Your task to perform on an android device: open app "Google Docs" Image 0: 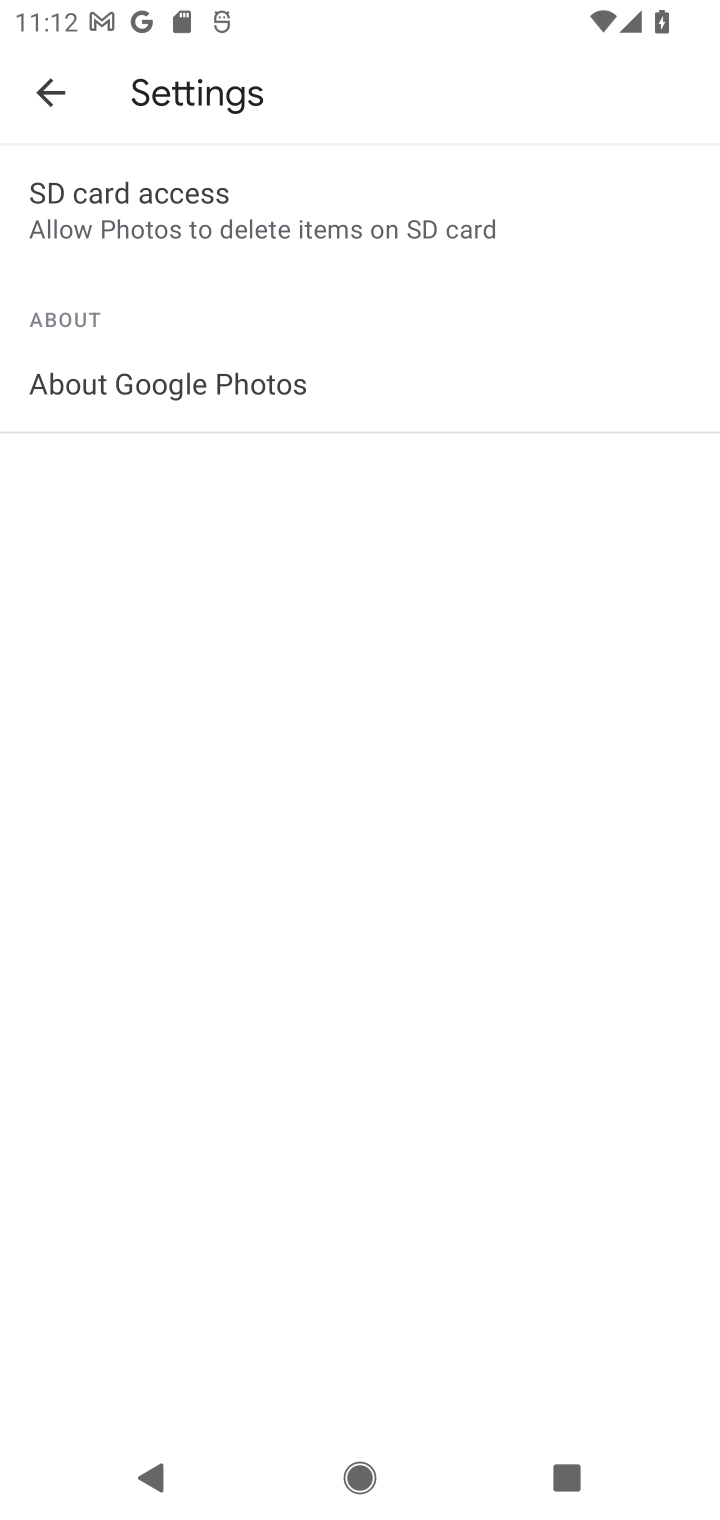
Step 0: press home button
Your task to perform on an android device: open app "Google Docs" Image 1: 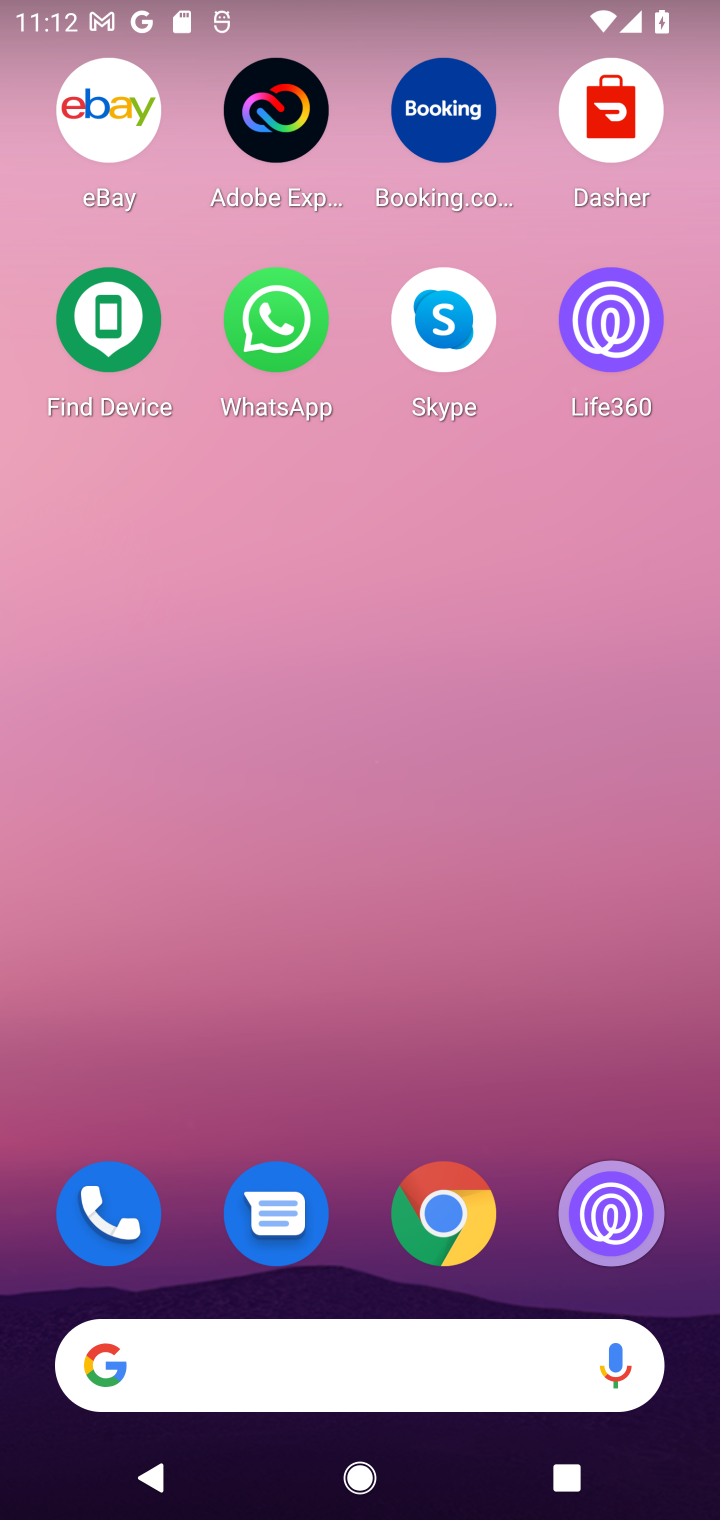
Step 1: drag from (336, 1353) to (308, 391)
Your task to perform on an android device: open app "Google Docs" Image 2: 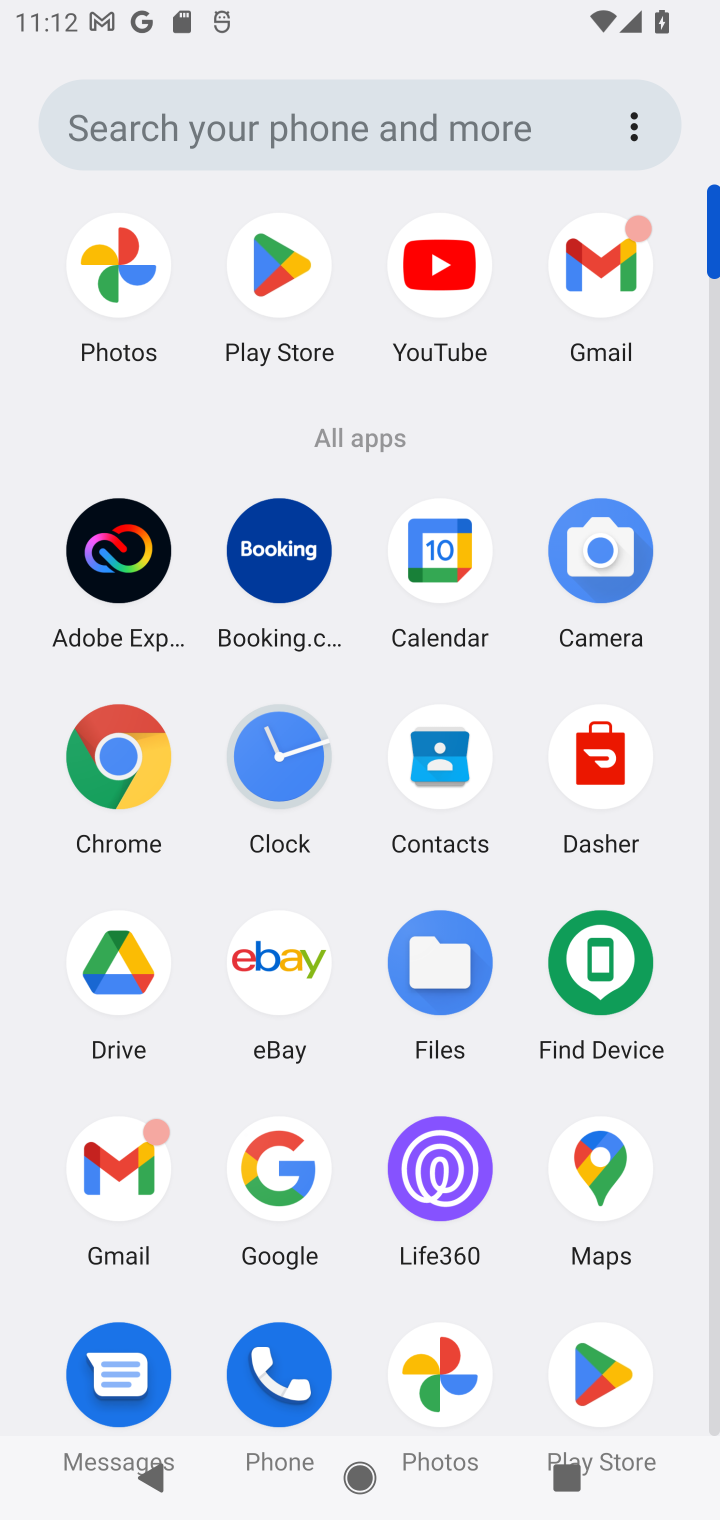
Step 2: click (284, 278)
Your task to perform on an android device: open app "Google Docs" Image 3: 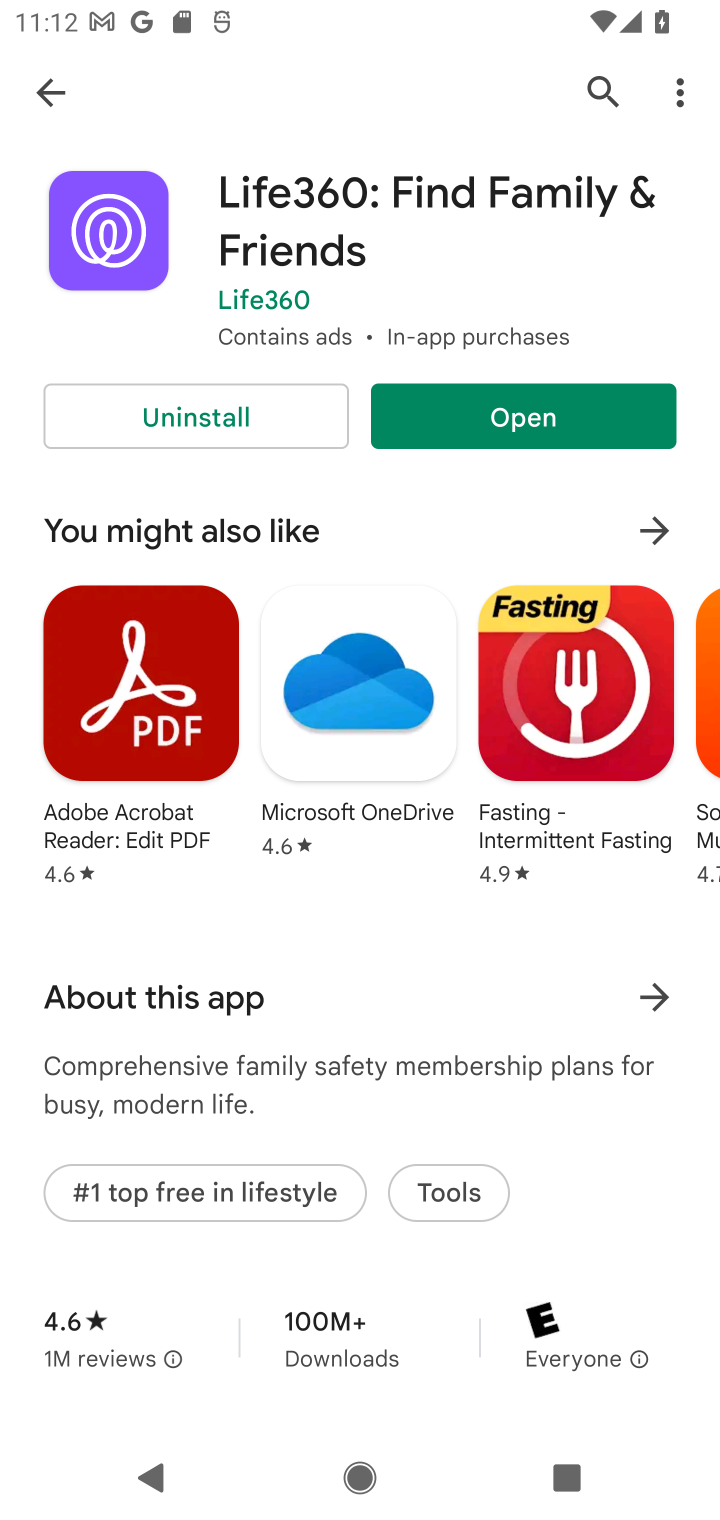
Step 3: press back button
Your task to perform on an android device: open app "Google Docs" Image 4: 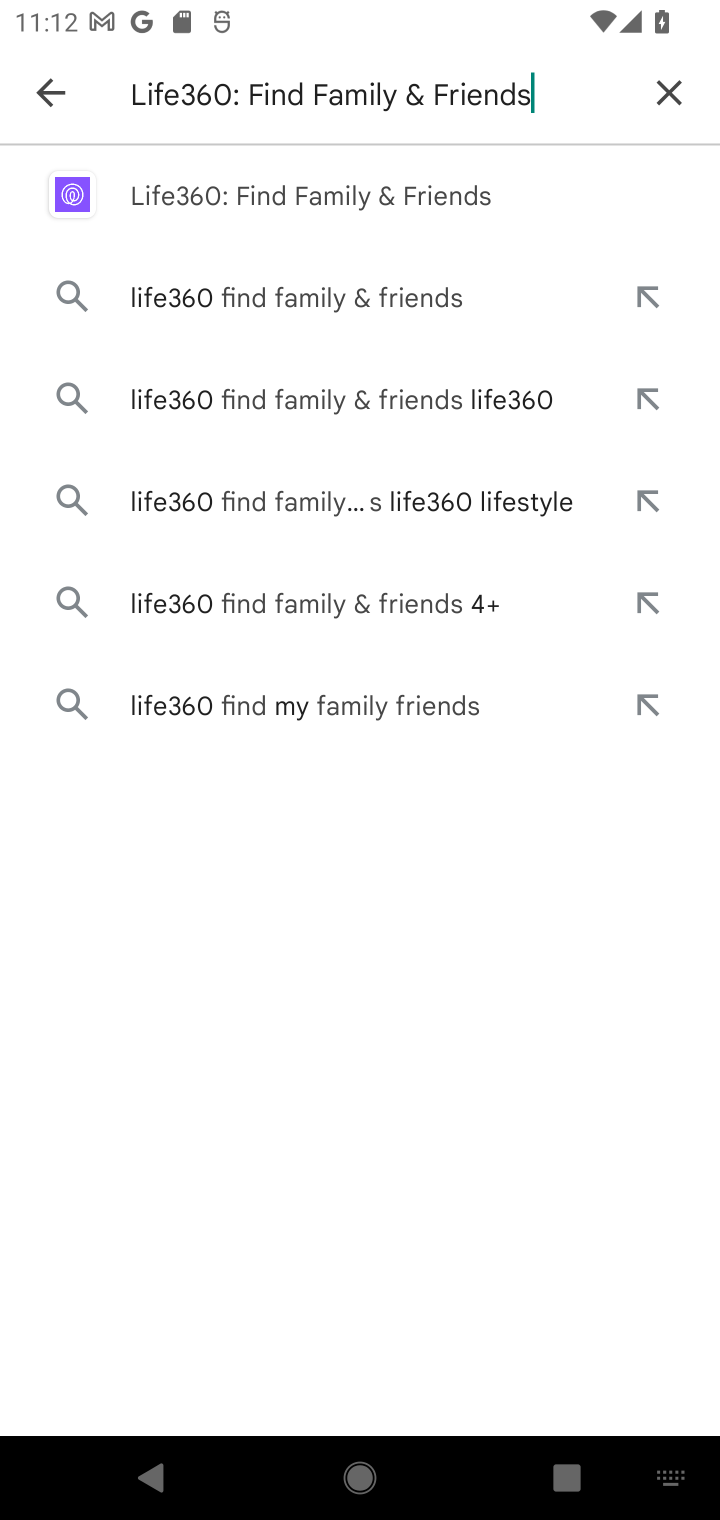
Step 4: press back button
Your task to perform on an android device: open app "Google Docs" Image 5: 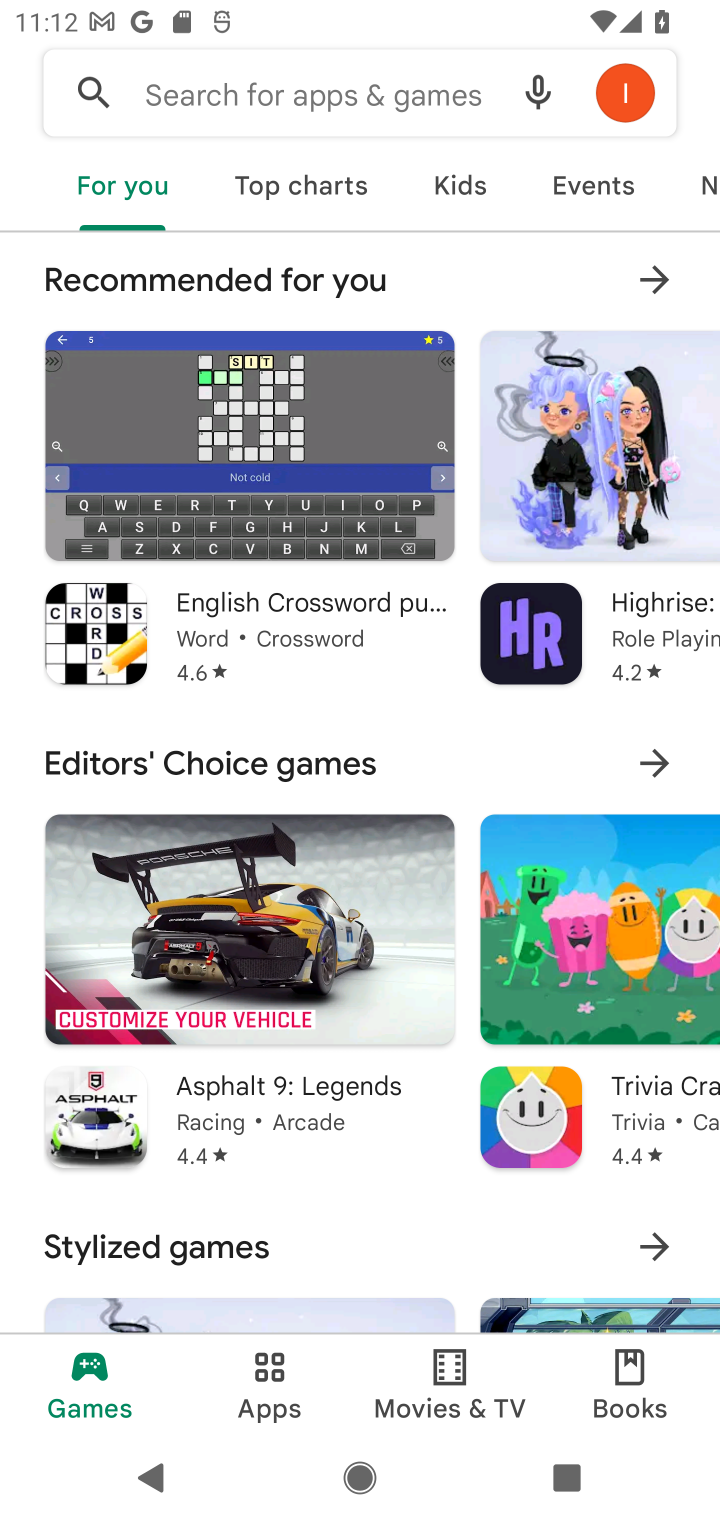
Step 5: click (454, 91)
Your task to perform on an android device: open app "Google Docs" Image 6: 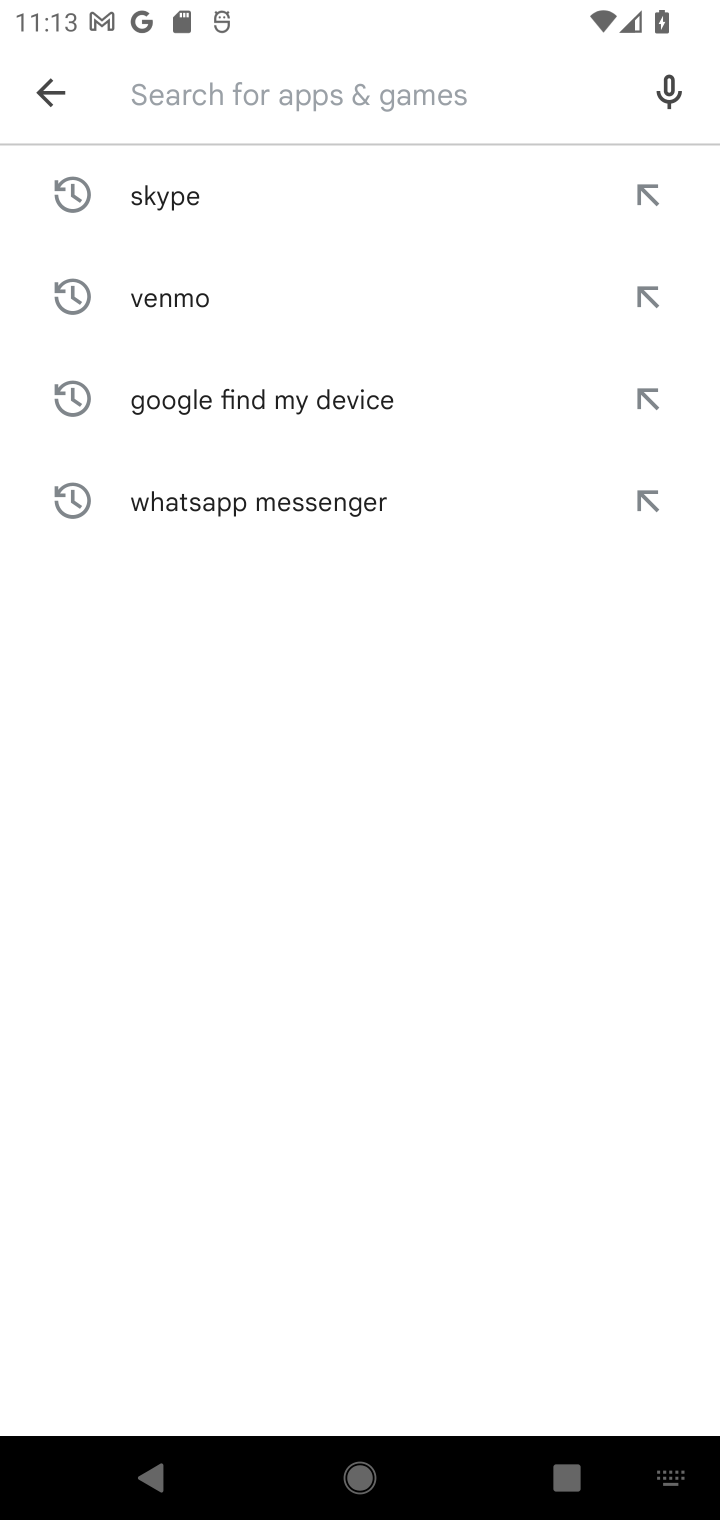
Step 6: type "Google Docs"
Your task to perform on an android device: open app "Google Docs" Image 7: 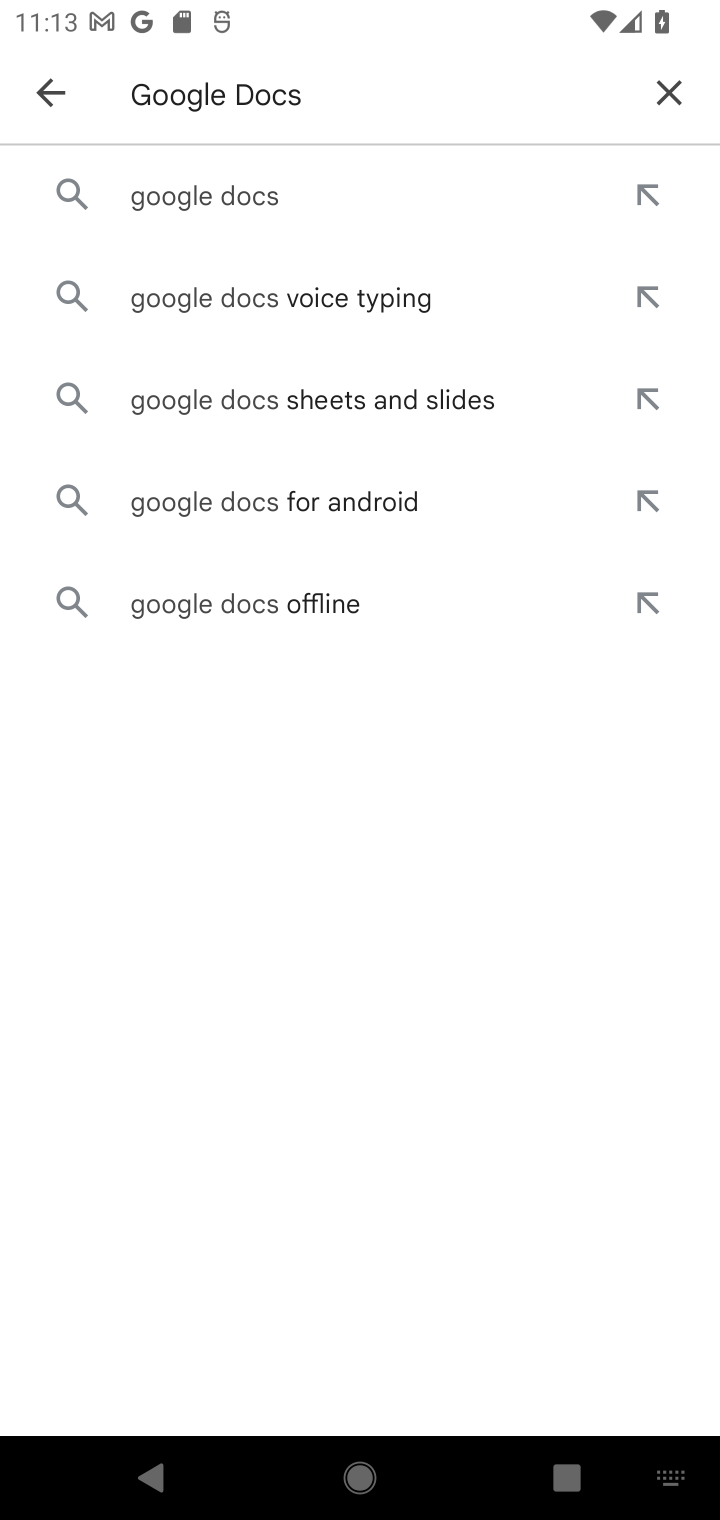
Step 7: click (226, 206)
Your task to perform on an android device: open app "Google Docs" Image 8: 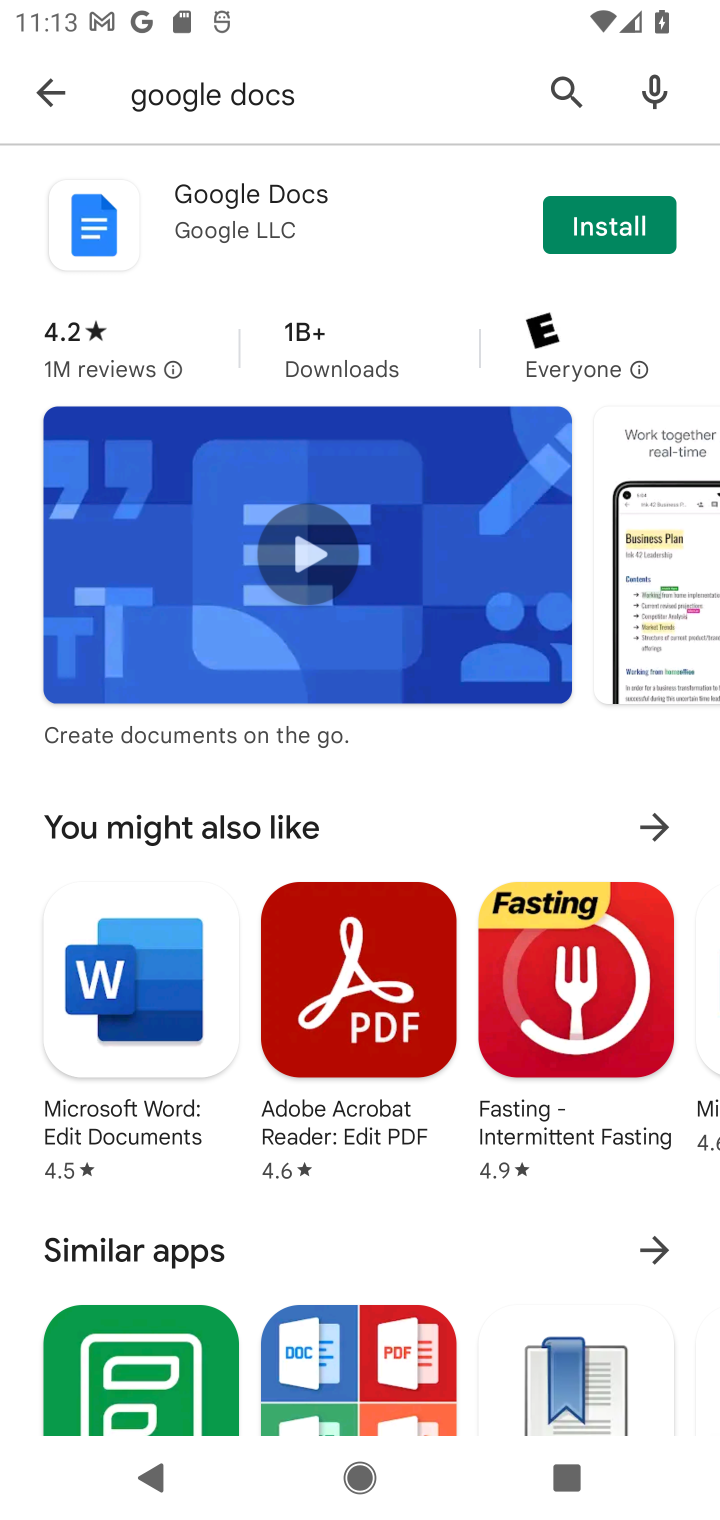
Step 8: task complete